Your task to perform on an android device: clear history in the chrome app Image 0: 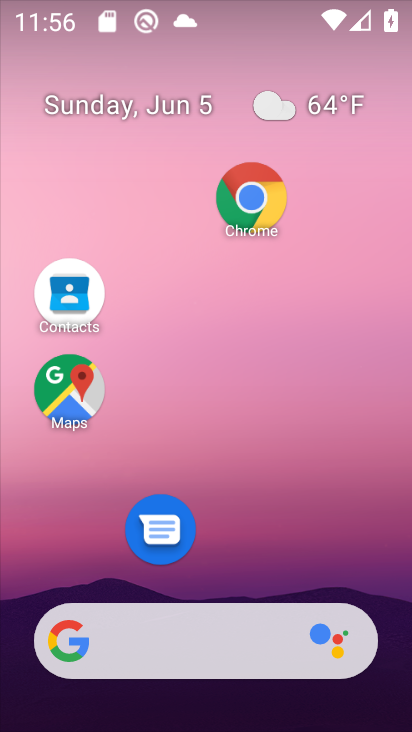
Step 0: click (259, 195)
Your task to perform on an android device: clear history in the chrome app Image 1: 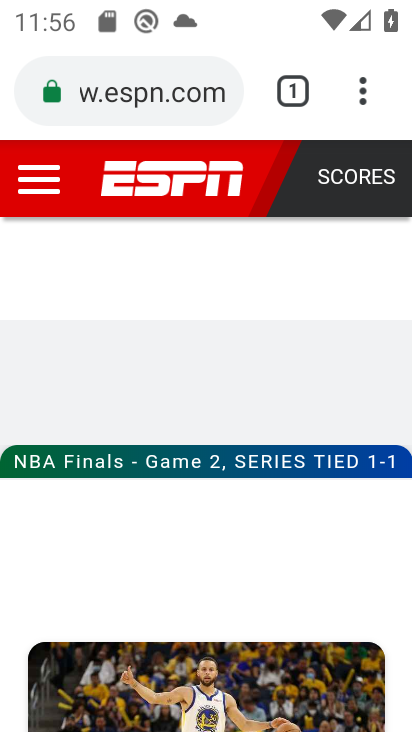
Step 1: click (370, 88)
Your task to perform on an android device: clear history in the chrome app Image 2: 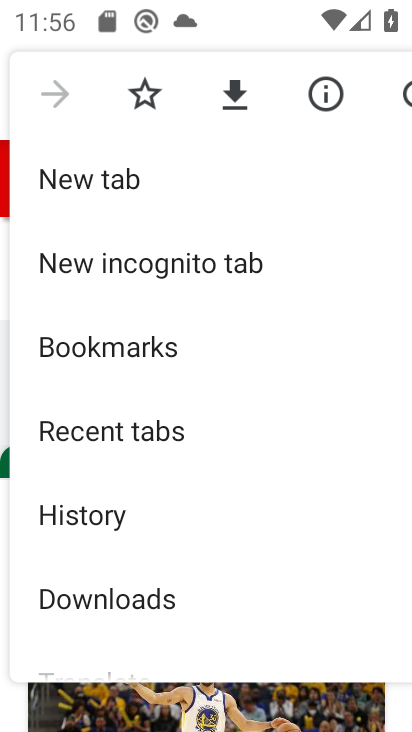
Step 2: click (127, 510)
Your task to perform on an android device: clear history in the chrome app Image 3: 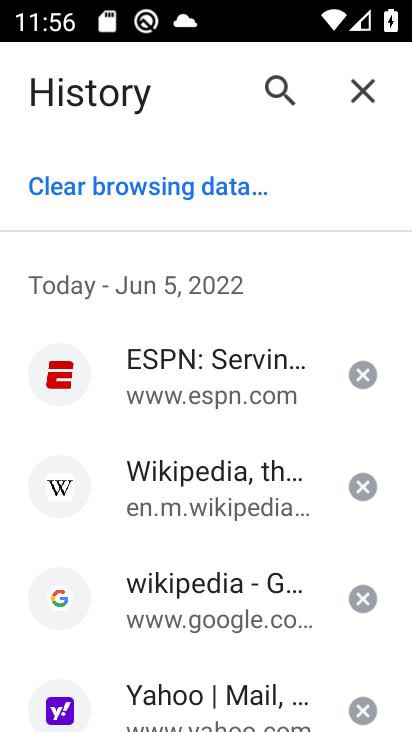
Step 3: click (74, 191)
Your task to perform on an android device: clear history in the chrome app Image 4: 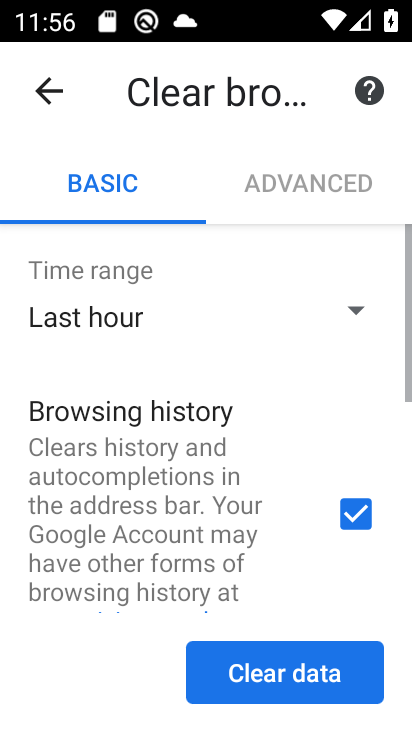
Step 4: click (284, 659)
Your task to perform on an android device: clear history in the chrome app Image 5: 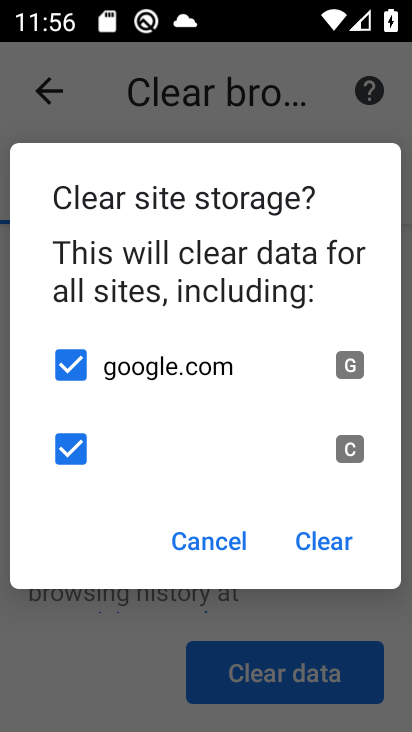
Step 5: click (338, 531)
Your task to perform on an android device: clear history in the chrome app Image 6: 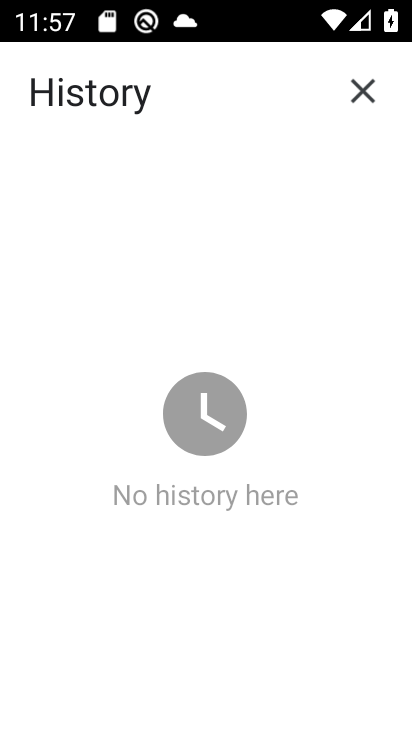
Step 6: task complete